Your task to perform on an android device: open the mobile data screen to see how much data has been used Image 0: 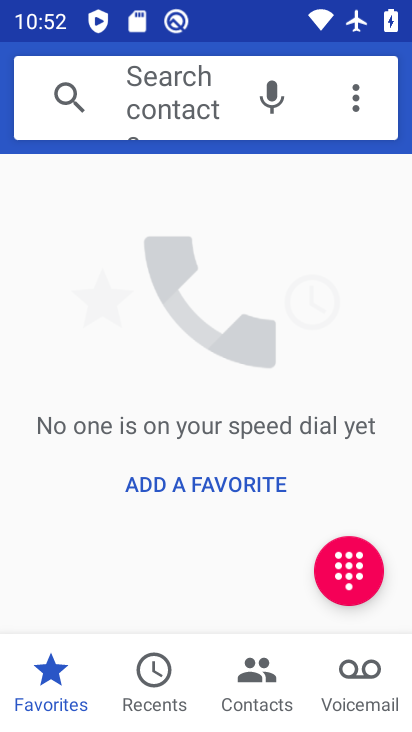
Step 0: press home button
Your task to perform on an android device: open the mobile data screen to see how much data has been used Image 1: 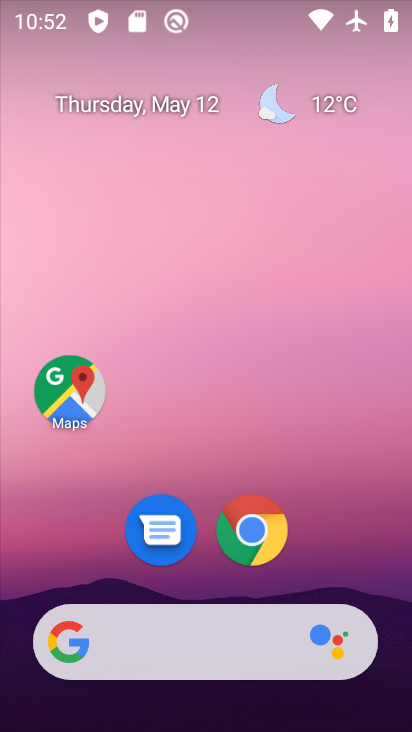
Step 1: drag from (169, 650) to (296, 109)
Your task to perform on an android device: open the mobile data screen to see how much data has been used Image 2: 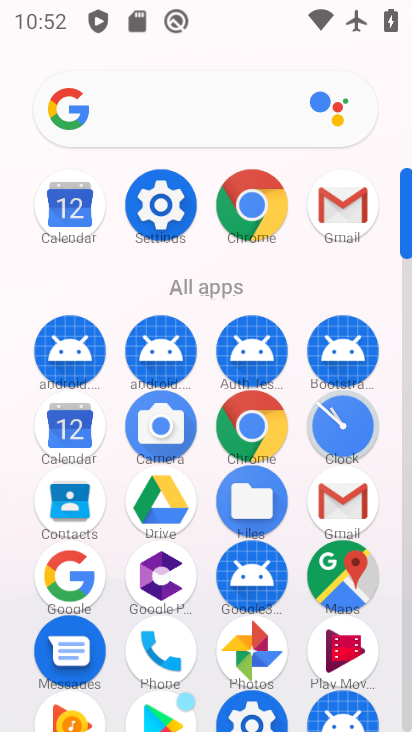
Step 2: click (170, 206)
Your task to perform on an android device: open the mobile data screen to see how much data has been used Image 3: 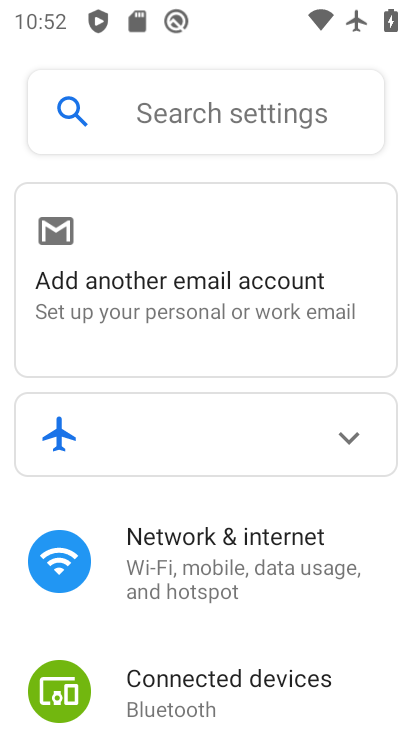
Step 3: click (192, 547)
Your task to perform on an android device: open the mobile data screen to see how much data has been used Image 4: 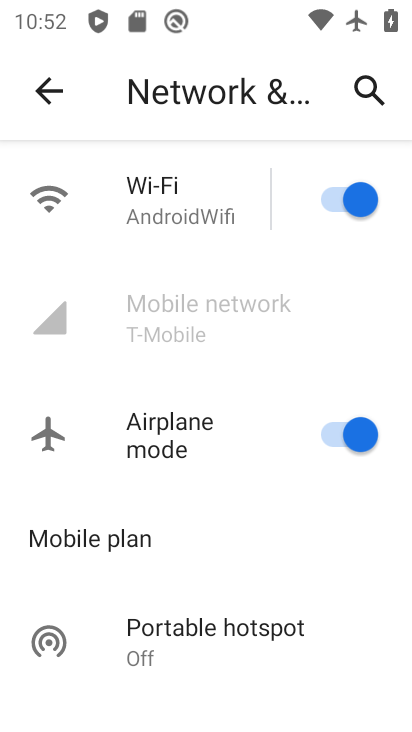
Step 4: task complete